Your task to perform on an android device: check android version Image 0: 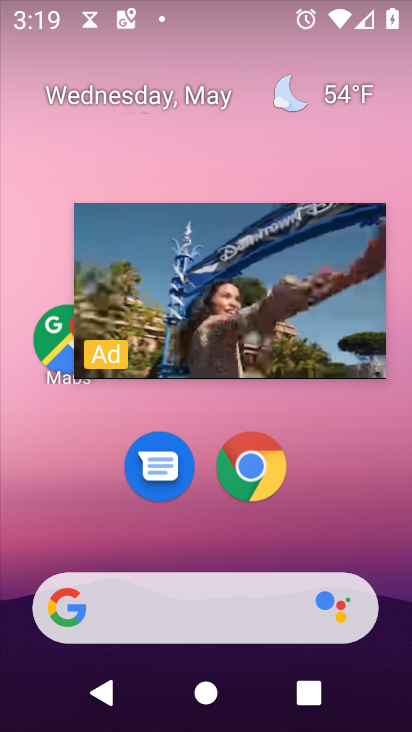
Step 0: click (356, 271)
Your task to perform on an android device: check android version Image 1: 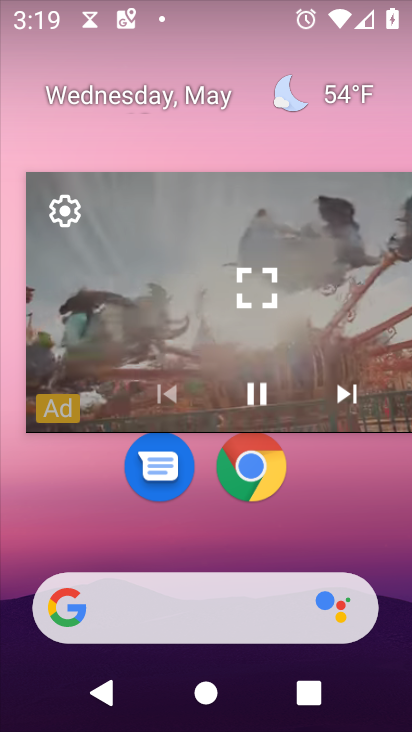
Step 1: drag from (356, 271) to (204, 721)
Your task to perform on an android device: check android version Image 2: 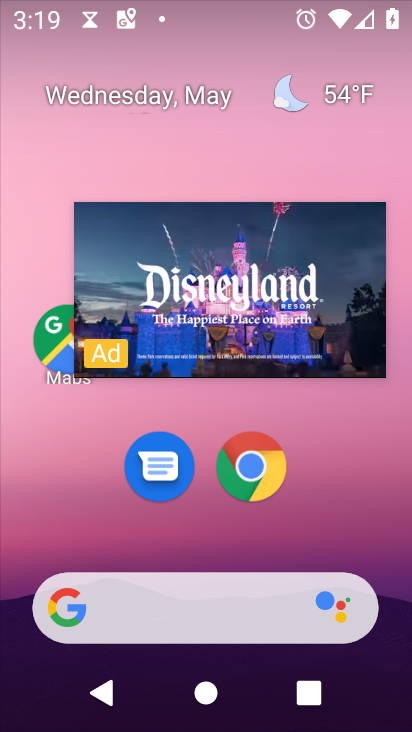
Step 2: drag from (260, 275) to (231, 718)
Your task to perform on an android device: check android version Image 3: 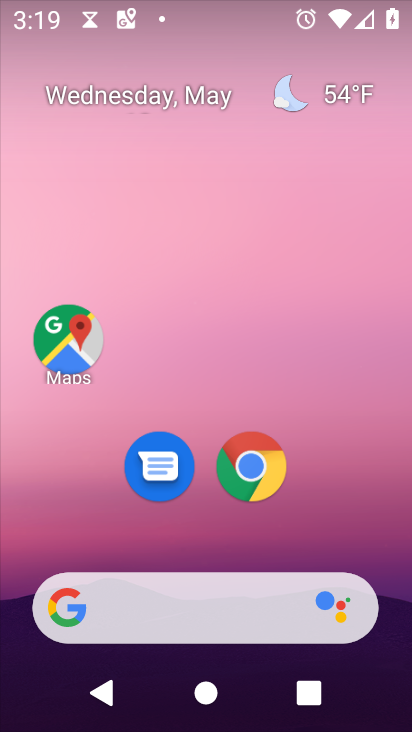
Step 3: drag from (356, 501) to (315, 191)
Your task to perform on an android device: check android version Image 4: 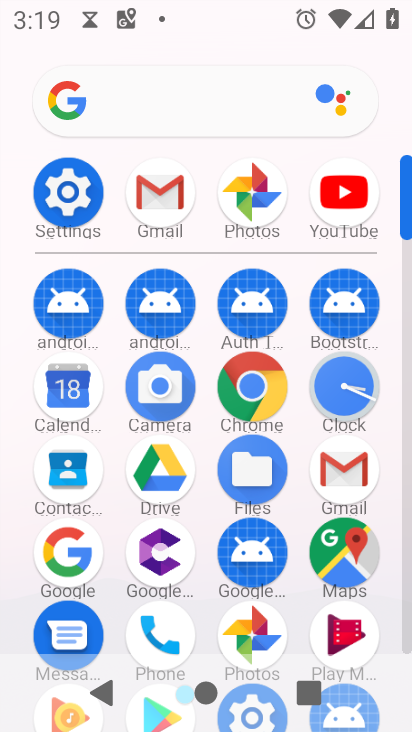
Step 4: click (86, 190)
Your task to perform on an android device: check android version Image 5: 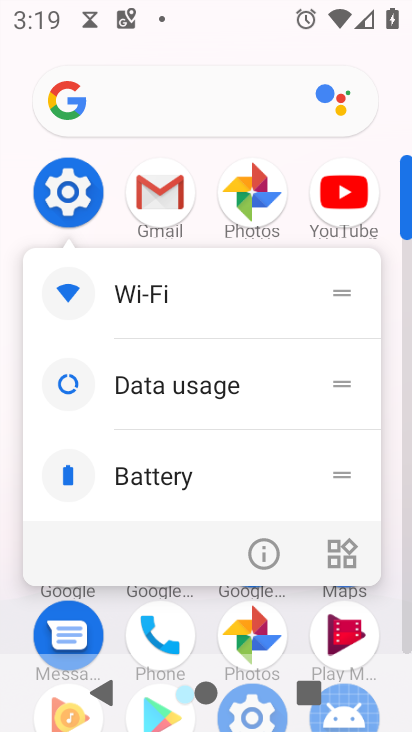
Step 5: click (84, 188)
Your task to perform on an android device: check android version Image 6: 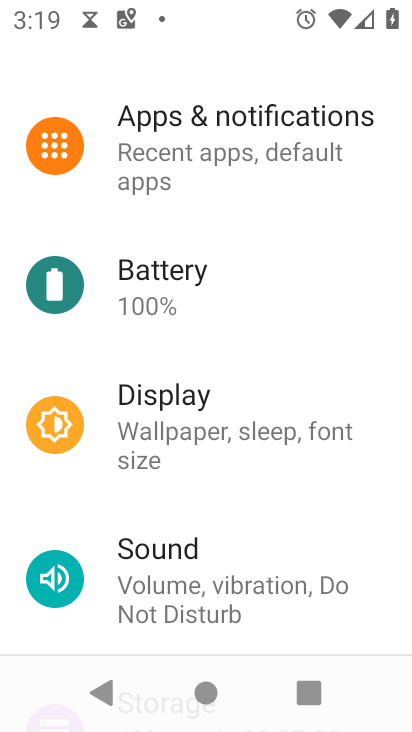
Step 6: task complete